Your task to perform on an android device: Open calendar and show me the first week of next month Image 0: 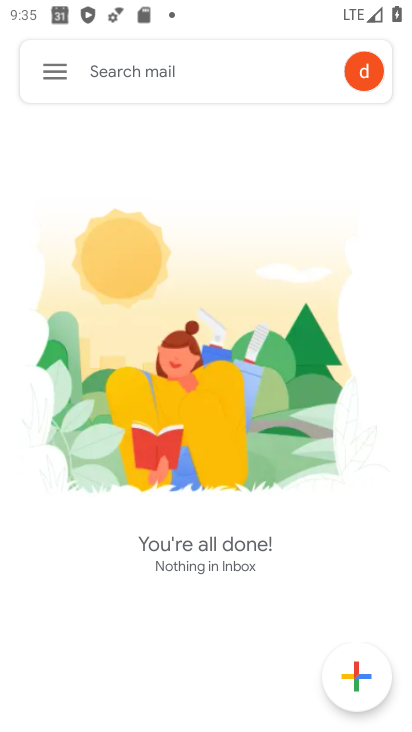
Step 0: press home button
Your task to perform on an android device: Open calendar and show me the first week of next month Image 1: 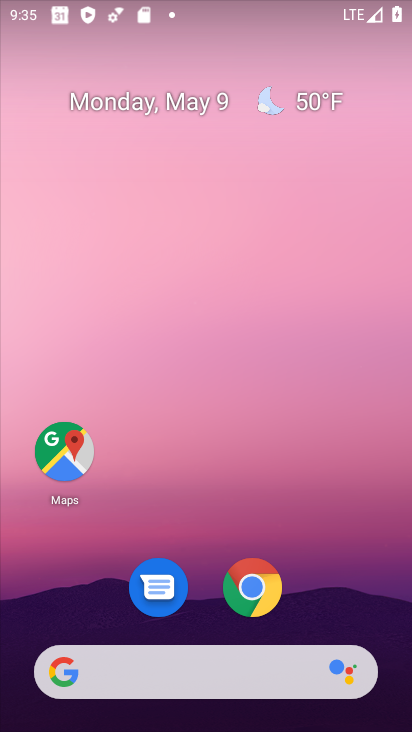
Step 1: drag from (210, 724) to (181, 201)
Your task to perform on an android device: Open calendar and show me the first week of next month Image 2: 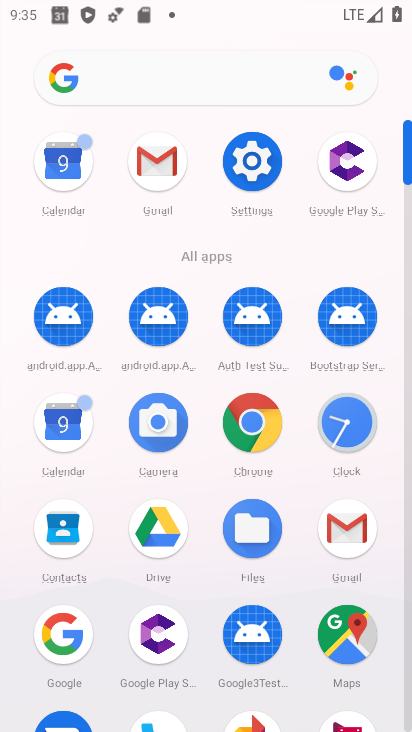
Step 2: click (63, 426)
Your task to perform on an android device: Open calendar and show me the first week of next month Image 3: 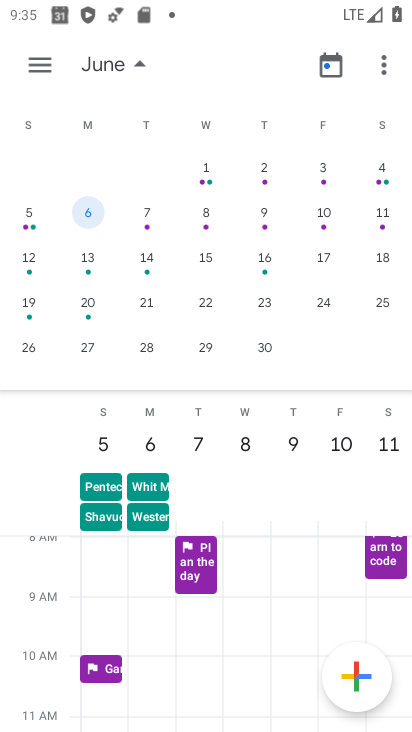
Step 3: task complete